Your task to perform on an android device: uninstall "PlayWell" Image 0: 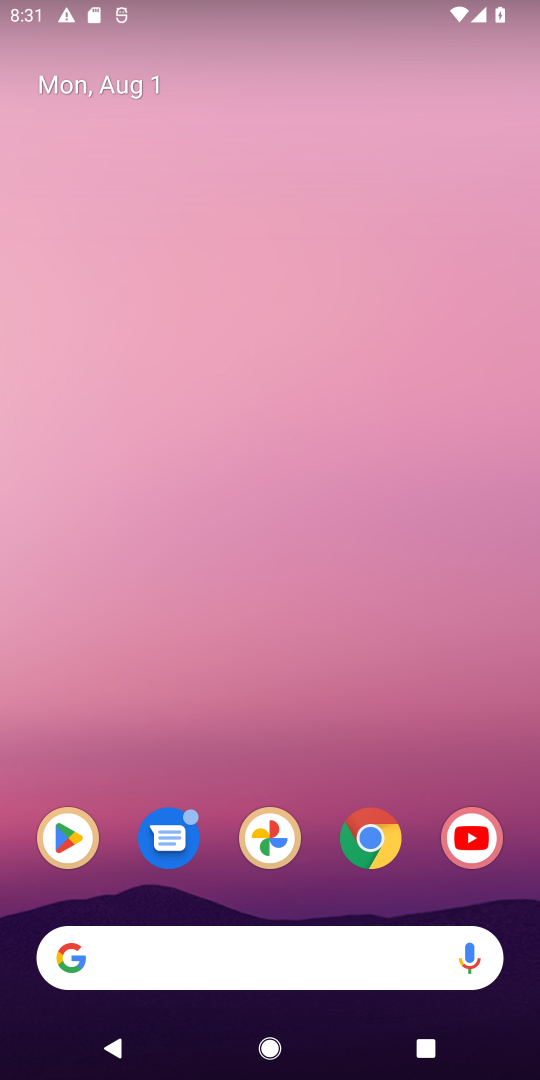
Step 0: drag from (321, 903) to (389, 137)
Your task to perform on an android device: uninstall "PlayWell" Image 1: 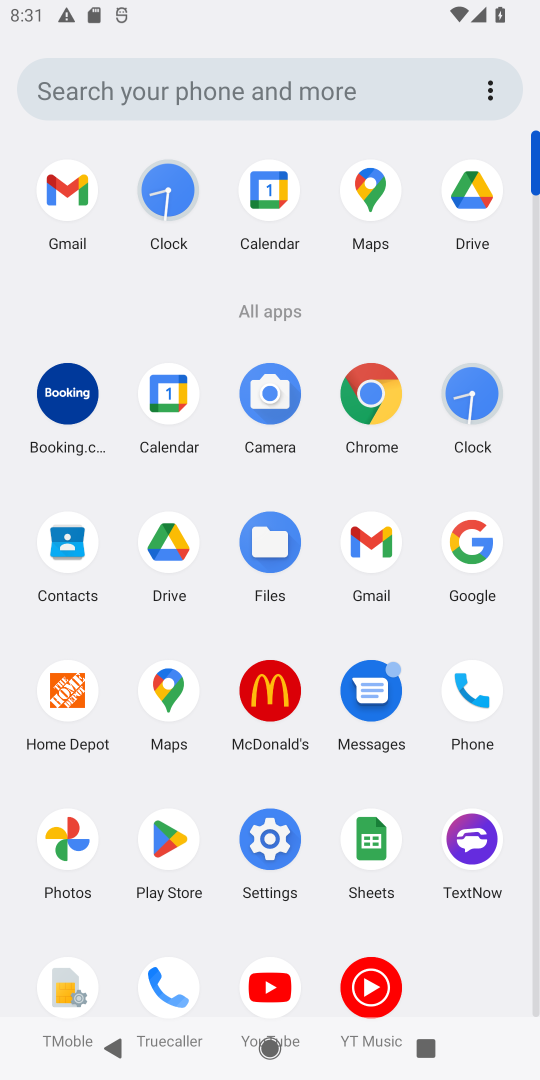
Step 1: click (153, 847)
Your task to perform on an android device: uninstall "PlayWell" Image 2: 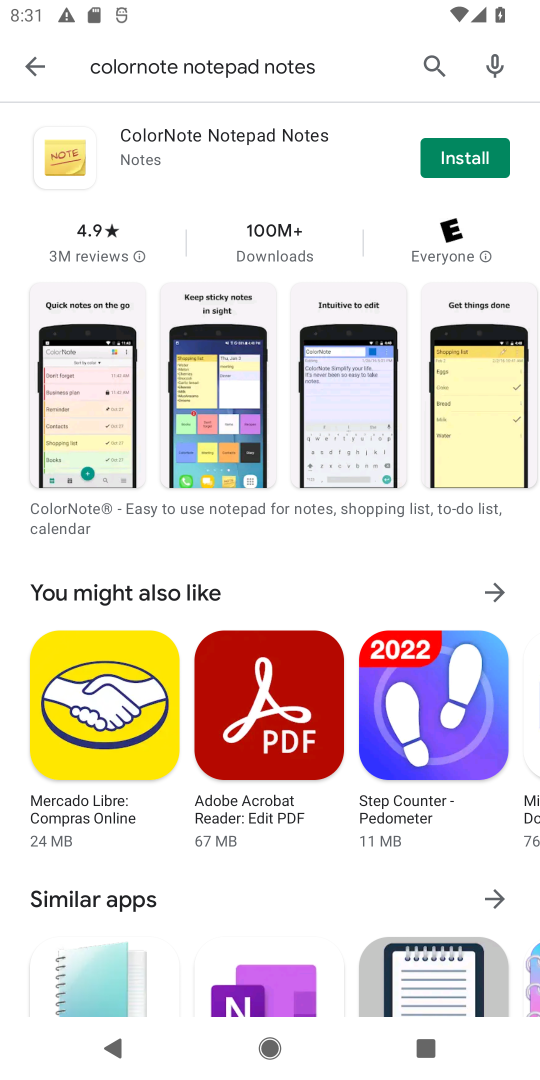
Step 2: click (442, 65)
Your task to perform on an android device: uninstall "PlayWell" Image 3: 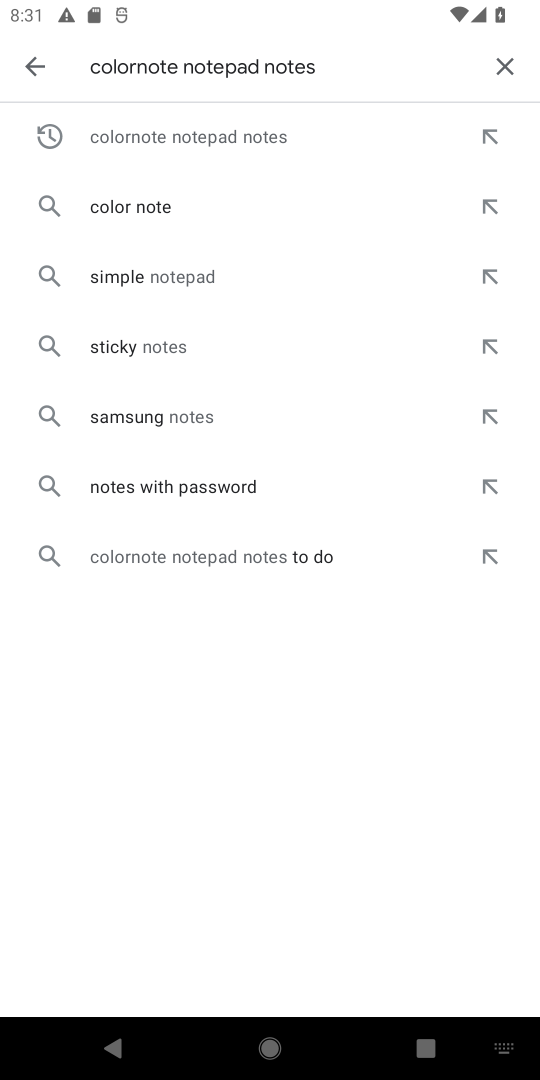
Step 3: click (505, 65)
Your task to perform on an android device: uninstall "PlayWell" Image 4: 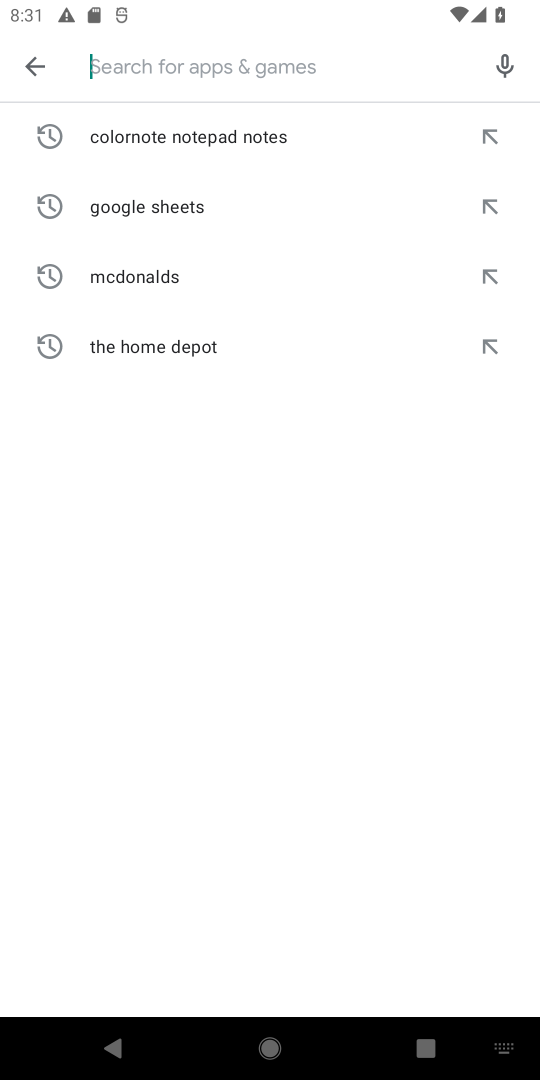
Step 4: type "playwell"
Your task to perform on an android device: uninstall "PlayWell" Image 5: 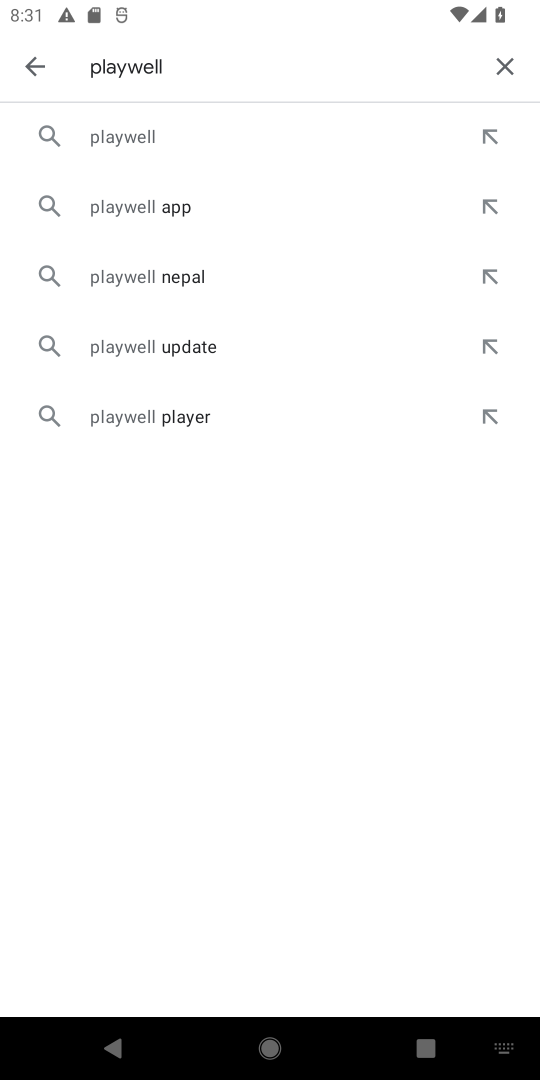
Step 5: click (390, 133)
Your task to perform on an android device: uninstall "PlayWell" Image 6: 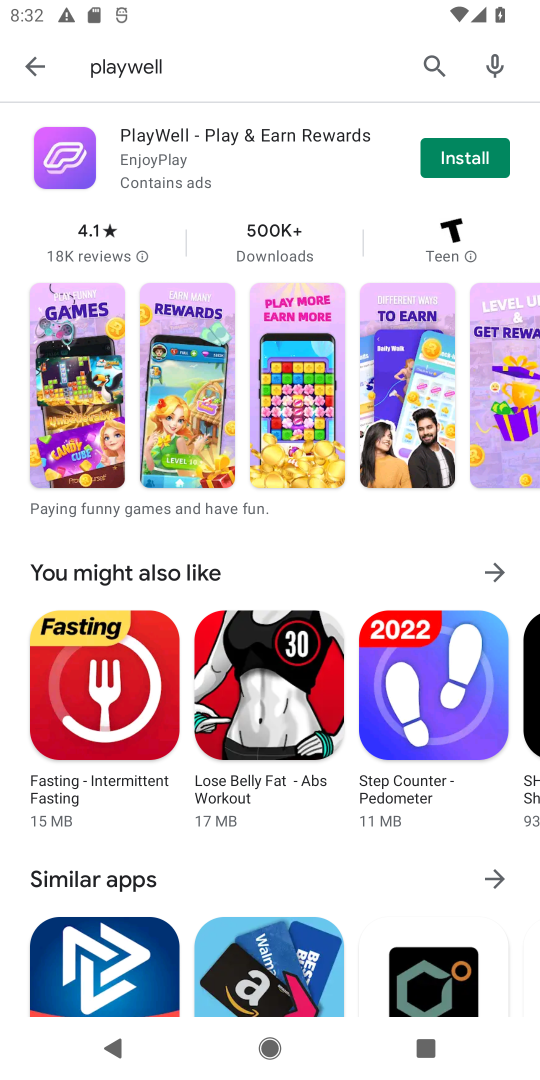
Step 6: task complete